Your task to perform on an android device: Check the weather Image 0: 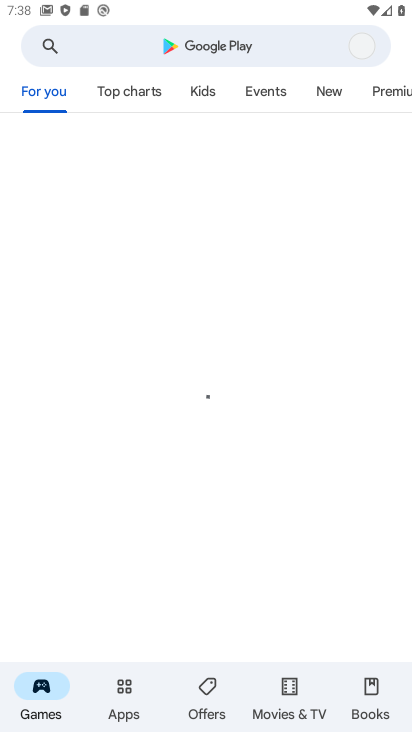
Step 0: press home button
Your task to perform on an android device: Check the weather Image 1: 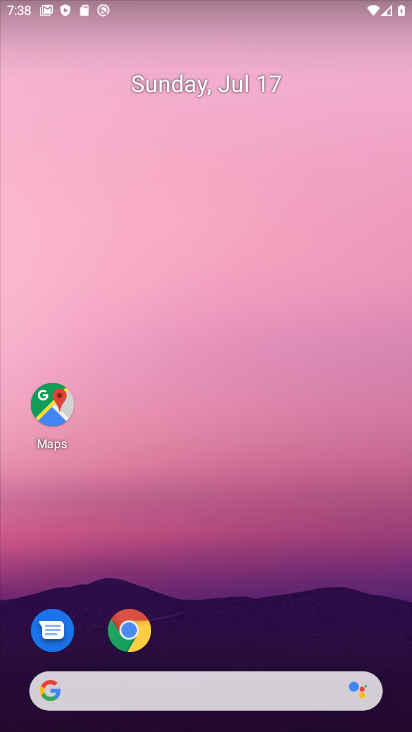
Step 1: click (118, 622)
Your task to perform on an android device: Check the weather Image 2: 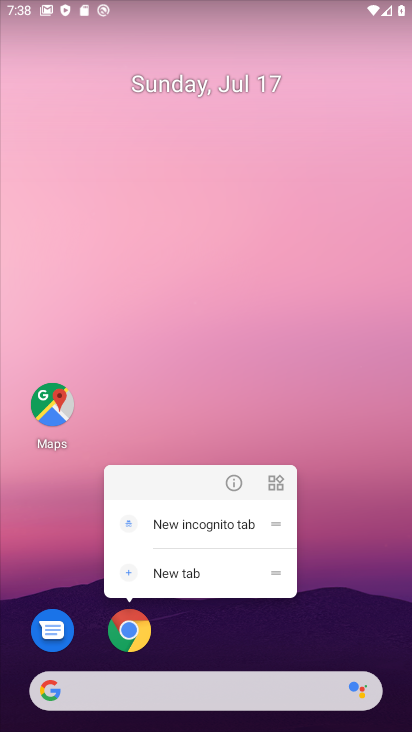
Step 2: click (137, 643)
Your task to perform on an android device: Check the weather Image 3: 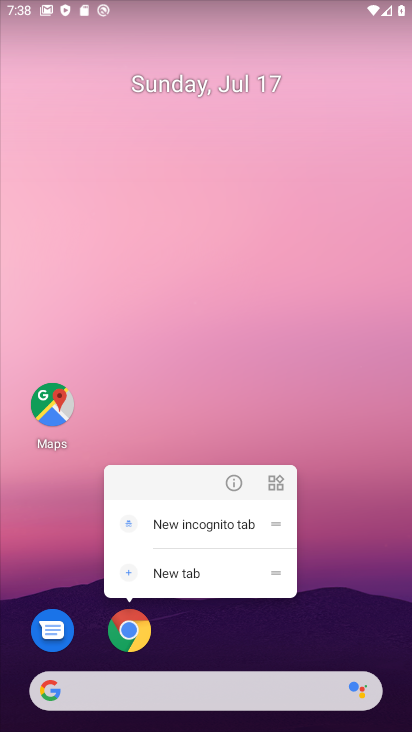
Step 3: click (138, 643)
Your task to perform on an android device: Check the weather Image 4: 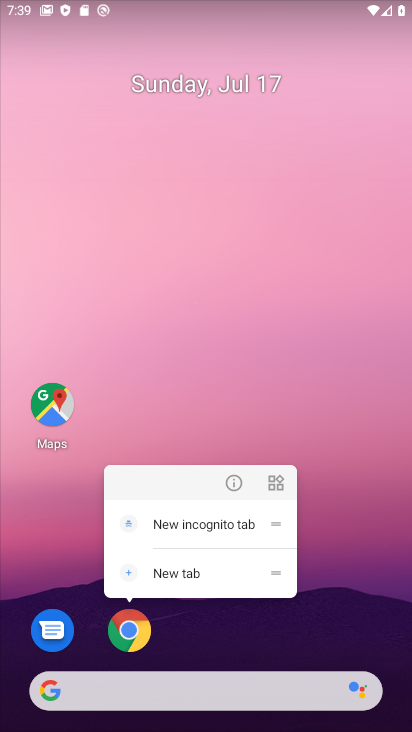
Step 4: click (217, 322)
Your task to perform on an android device: Check the weather Image 5: 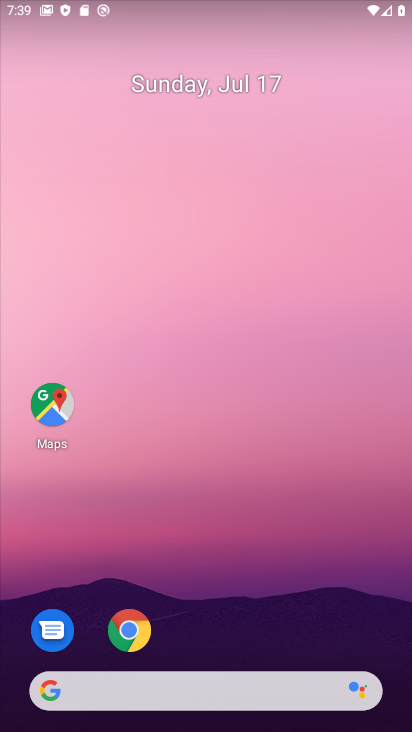
Step 5: drag from (212, 662) to (318, 244)
Your task to perform on an android device: Check the weather Image 6: 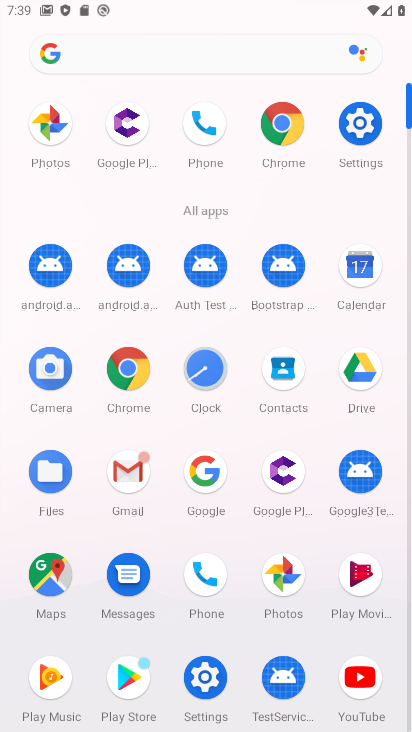
Step 6: click (291, 111)
Your task to perform on an android device: Check the weather Image 7: 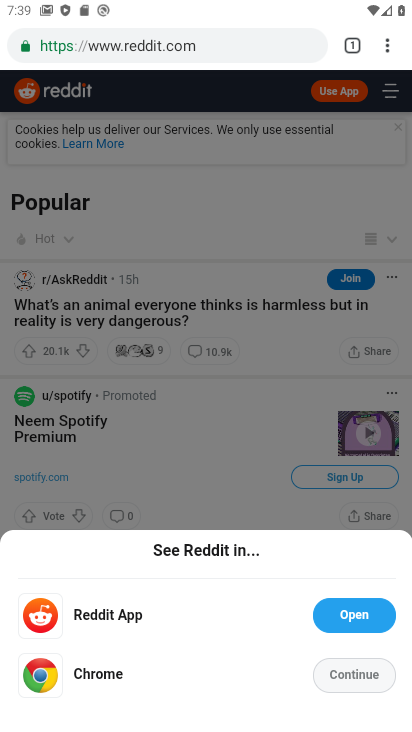
Step 7: click (380, 36)
Your task to perform on an android device: Check the weather Image 8: 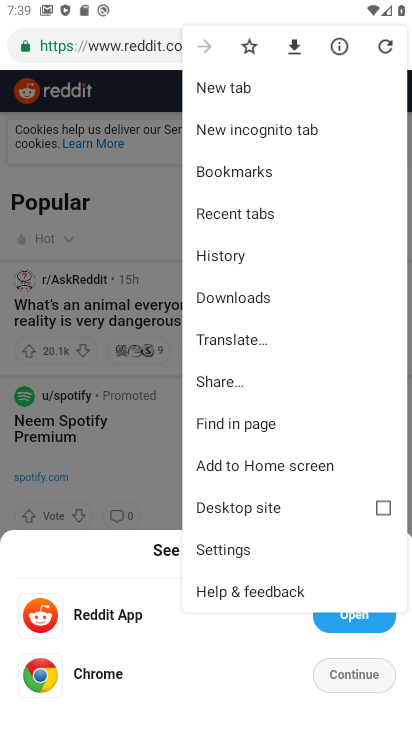
Step 8: click (237, 91)
Your task to perform on an android device: Check the weather Image 9: 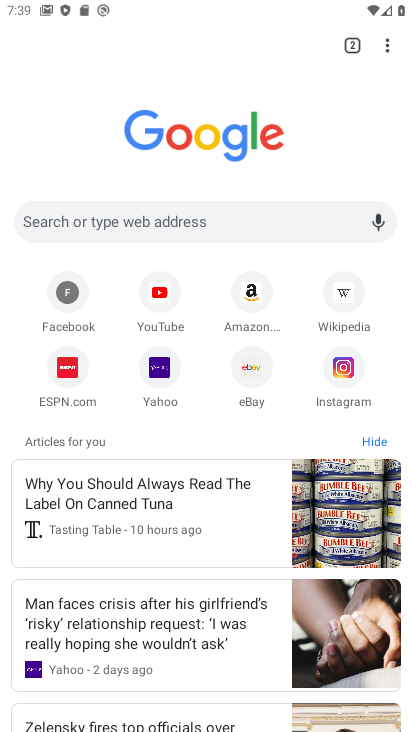
Step 9: click (193, 210)
Your task to perform on an android device: Check the weather Image 10: 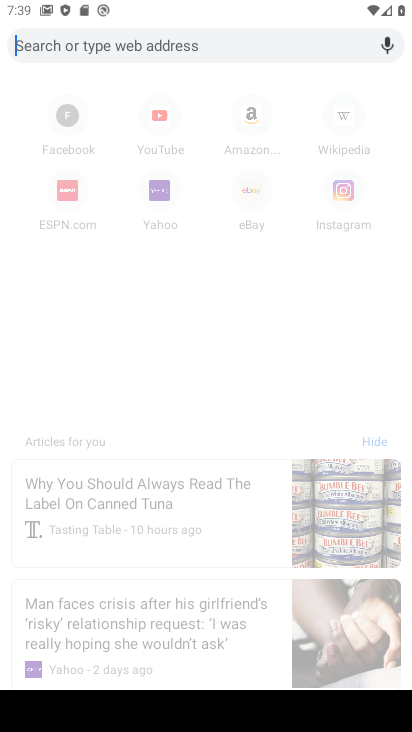
Step 10: type "Check the weather "
Your task to perform on an android device: Check the weather Image 11: 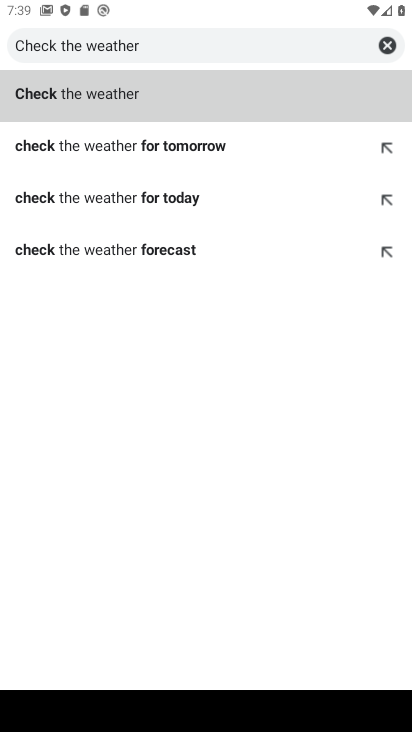
Step 11: click (184, 87)
Your task to perform on an android device: Check the weather Image 12: 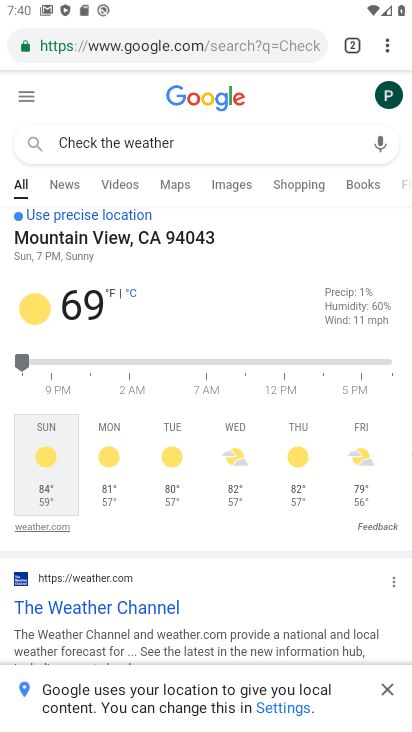
Step 12: task complete